Your task to perform on an android device: turn off notifications in google photos Image 0: 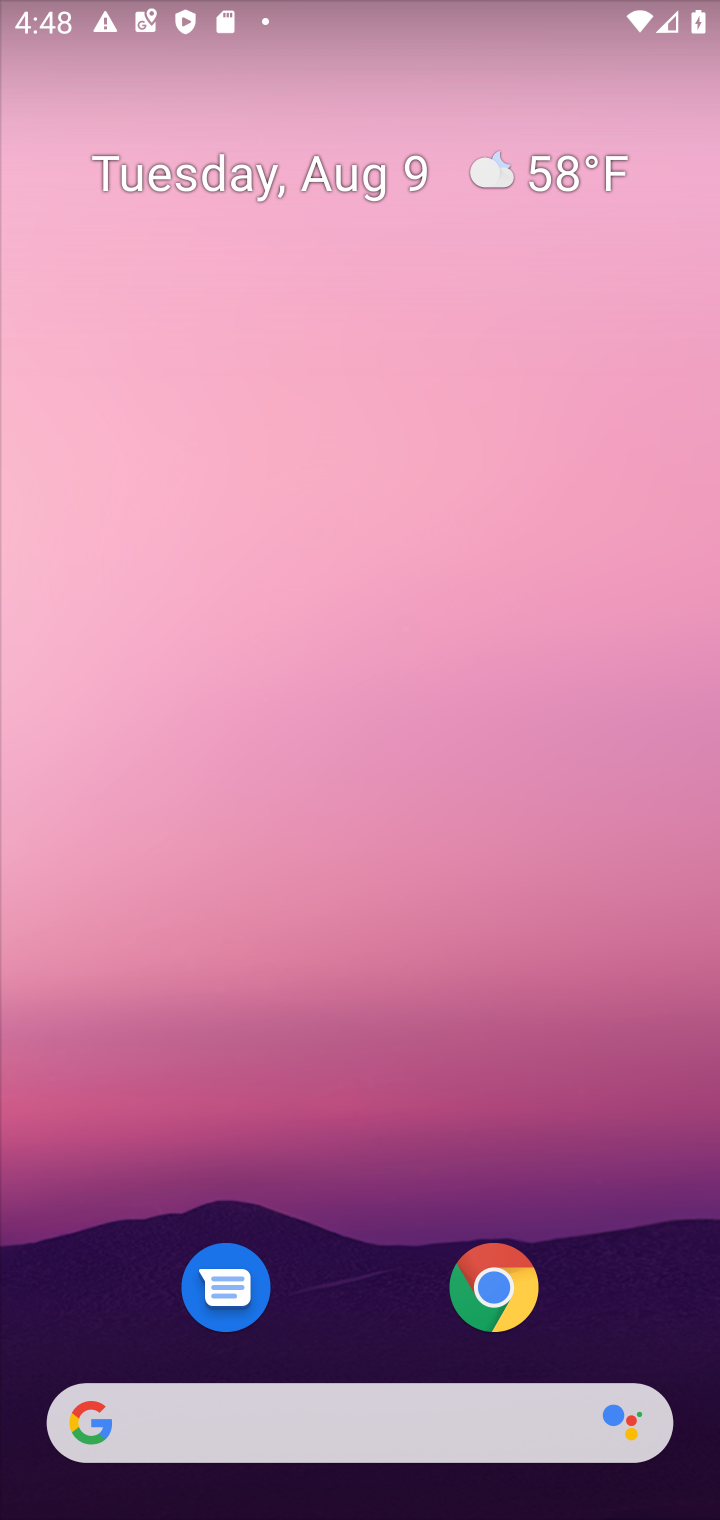
Step 0: drag from (319, 1082) to (364, 429)
Your task to perform on an android device: turn off notifications in google photos Image 1: 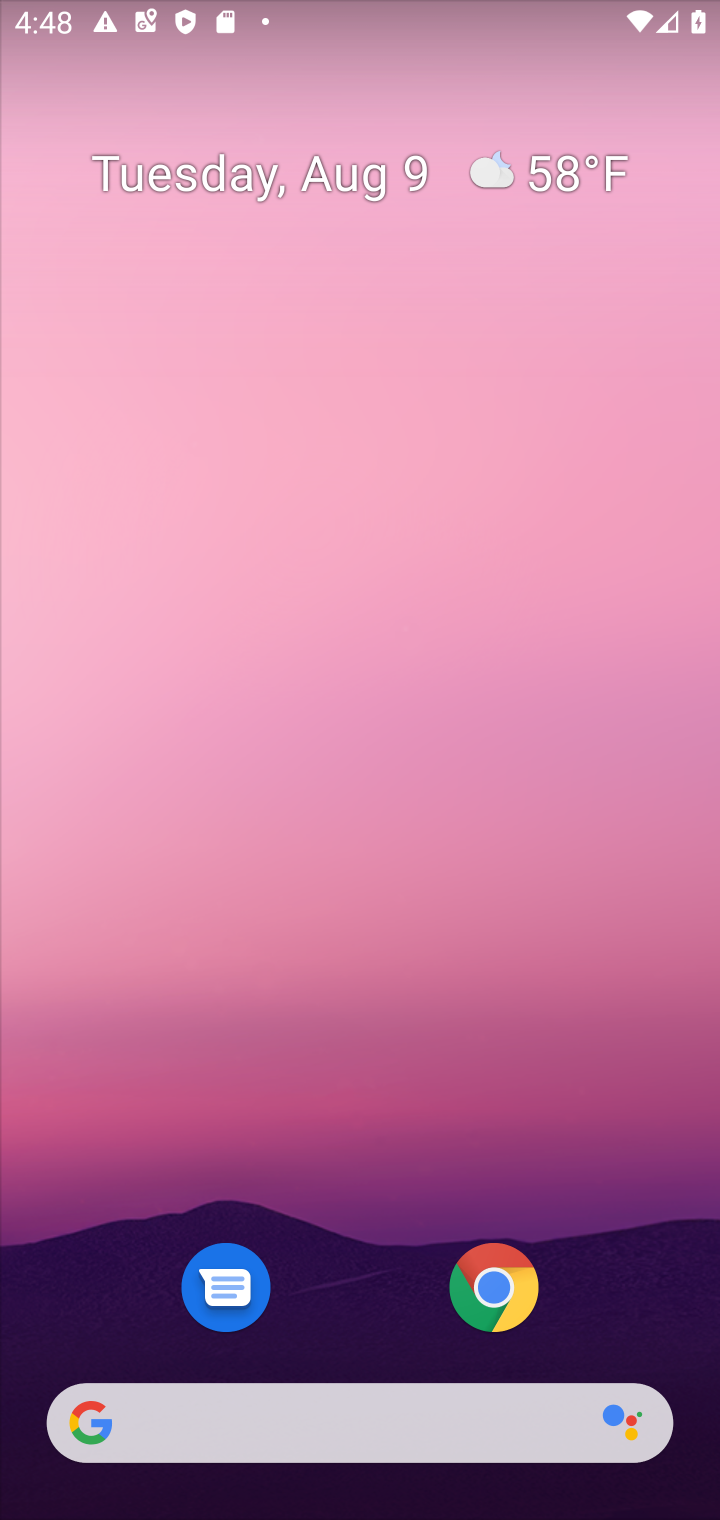
Step 1: drag from (469, 1243) to (384, 1139)
Your task to perform on an android device: turn off notifications in google photos Image 2: 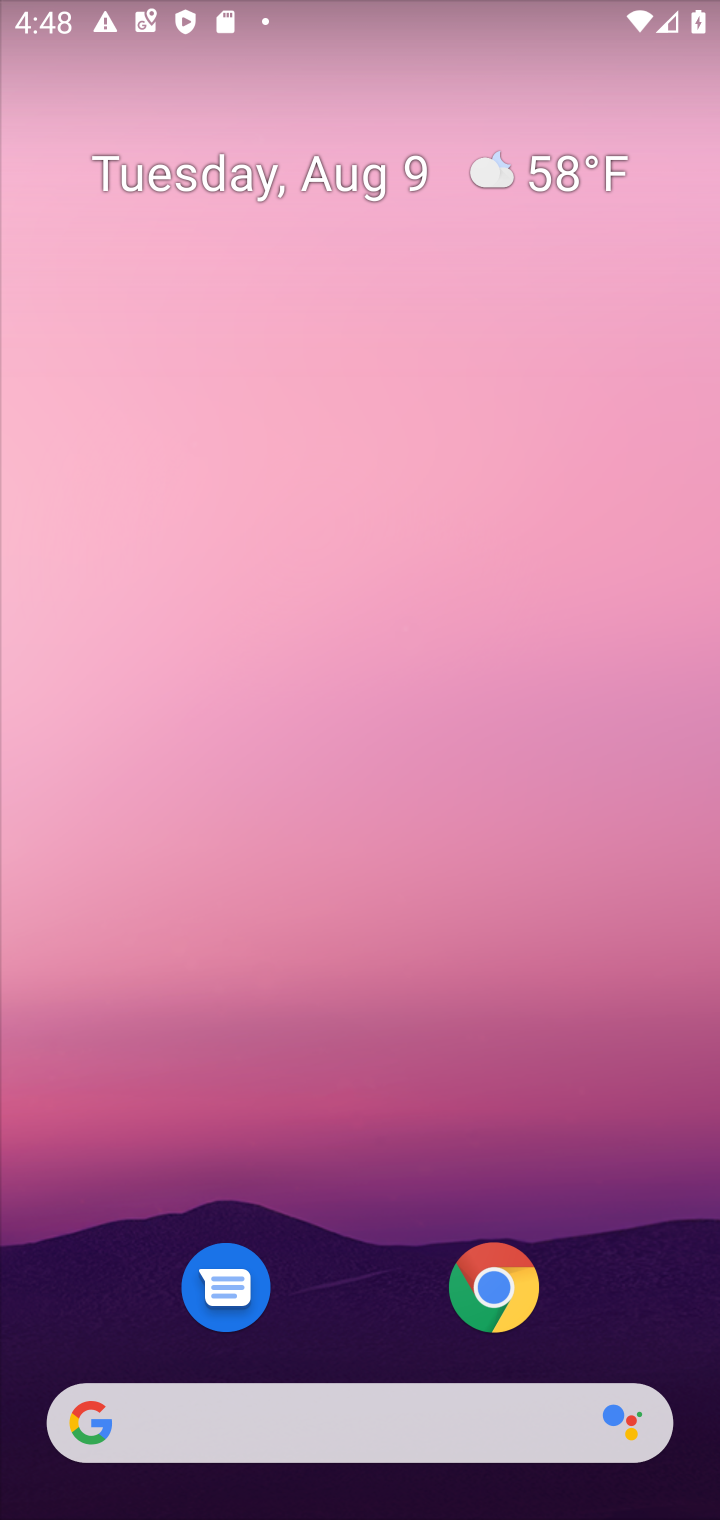
Step 2: drag from (385, 1139) to (455, 454)
Your task to perform on an android device: turn off notifications in google photos Image 3: 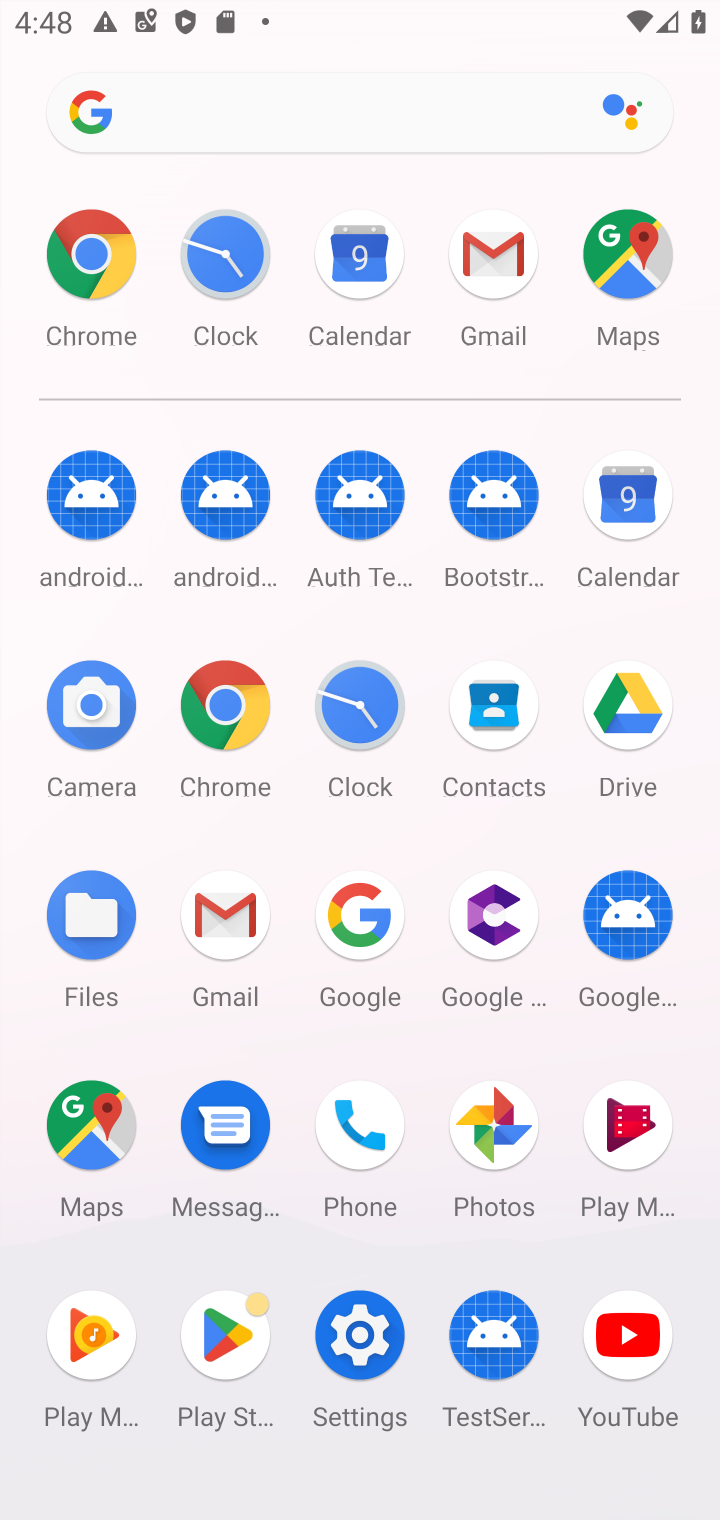
Step 3: click (502, 1118)
Your task to perform on an android device: turn off notifications in google photos Image 4: 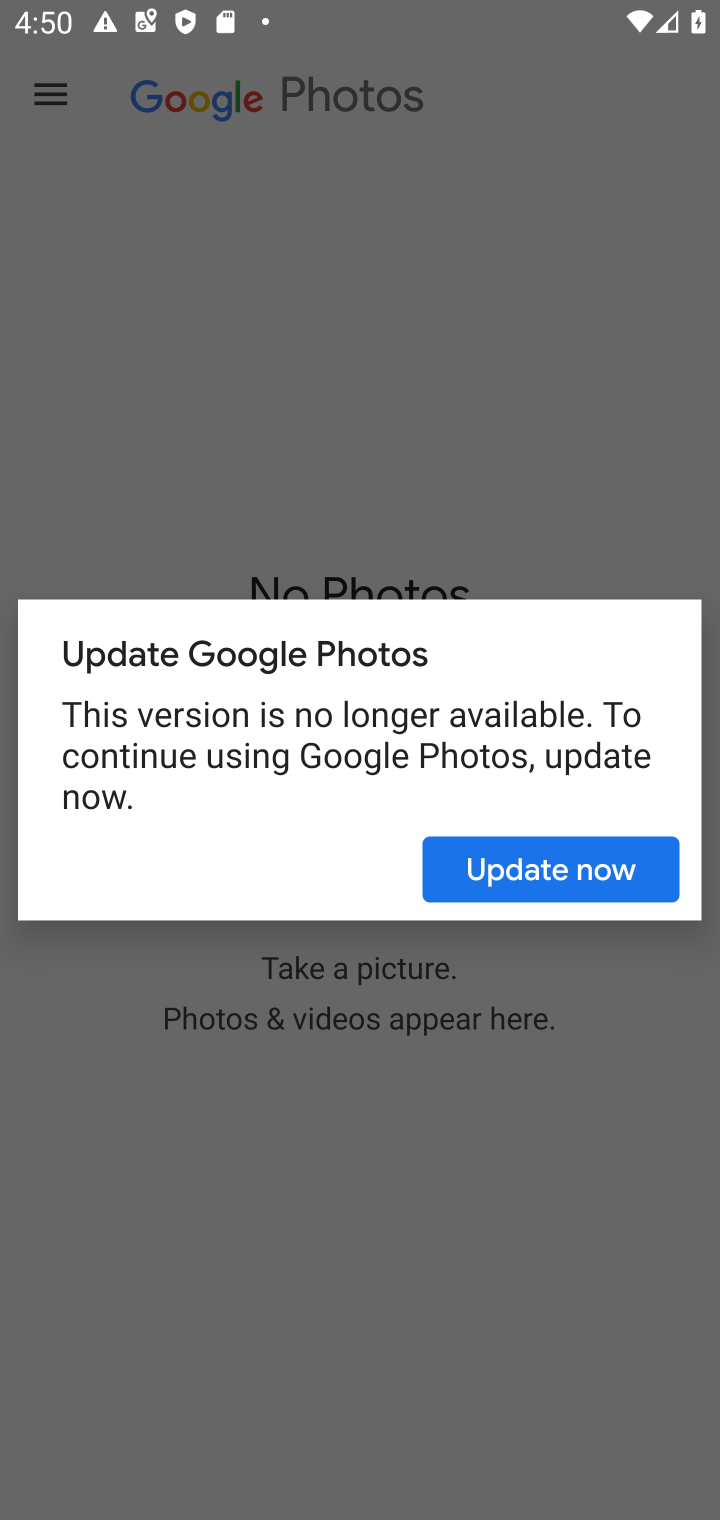
Step 4: press home button
Your task to perform on an android device: turn off notifications in google photos Image 5: 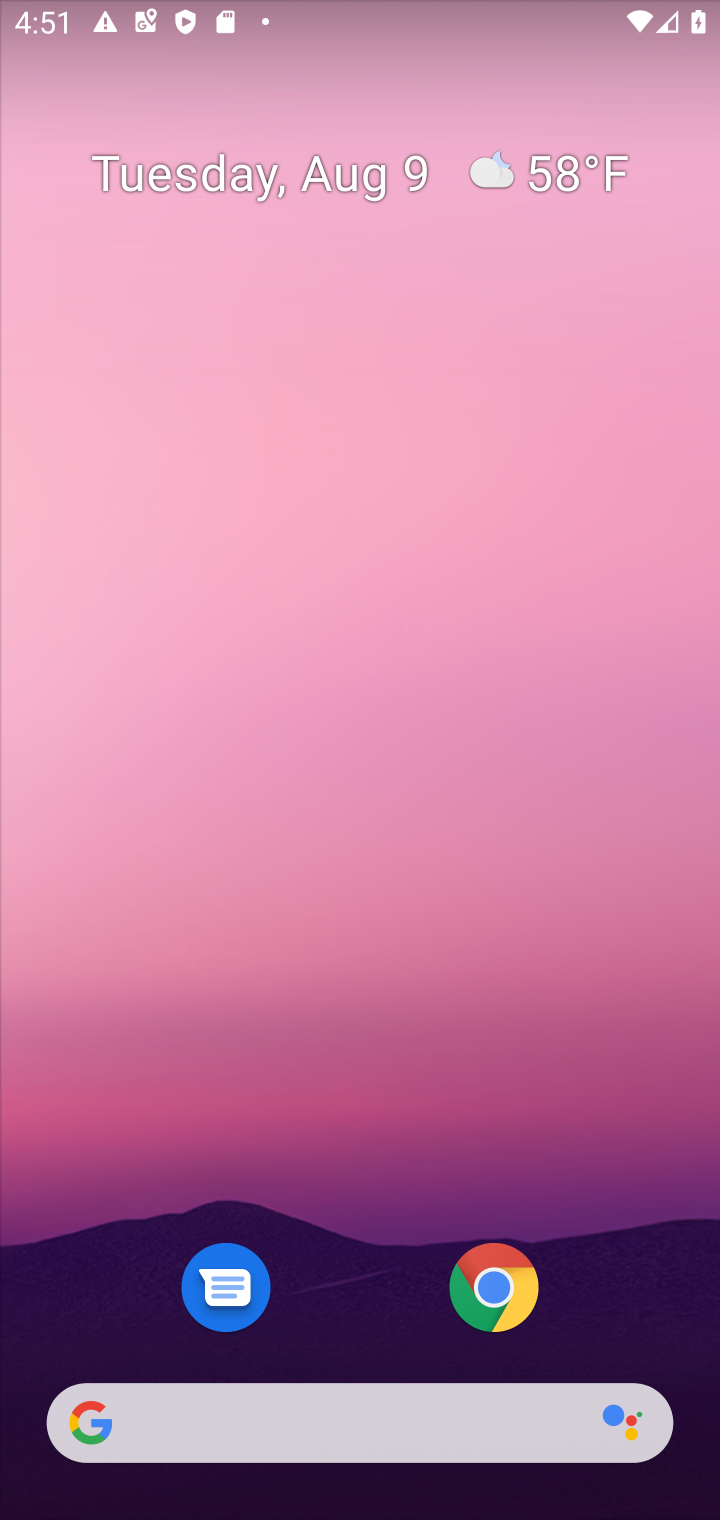
Step 5: drag from (374, 1067) to (548, 309)
Your task to perform on an android device: turn off notifications in google photos Image 6: 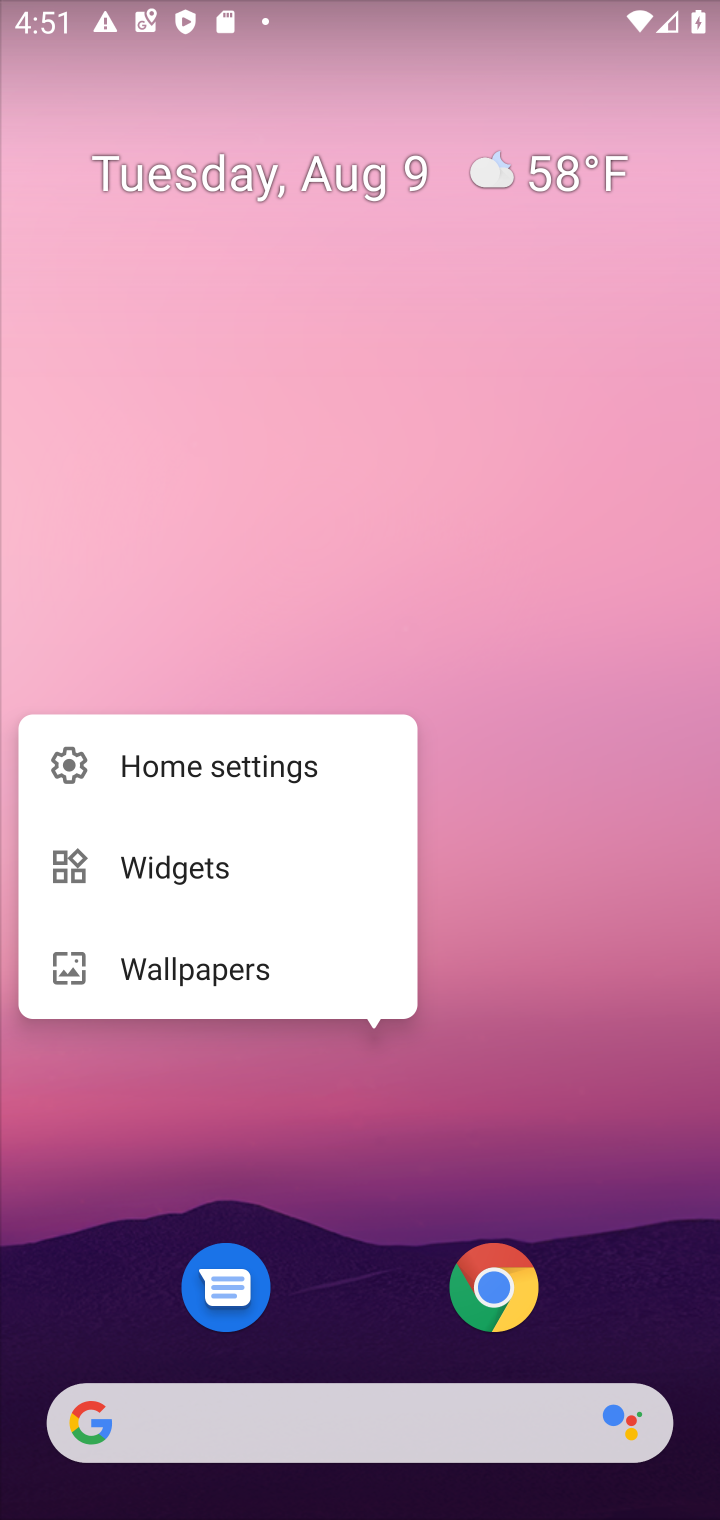
Step 6: click (438, 1123)
Your task to perform on an android device: turn off notifications in google photos Image 7: 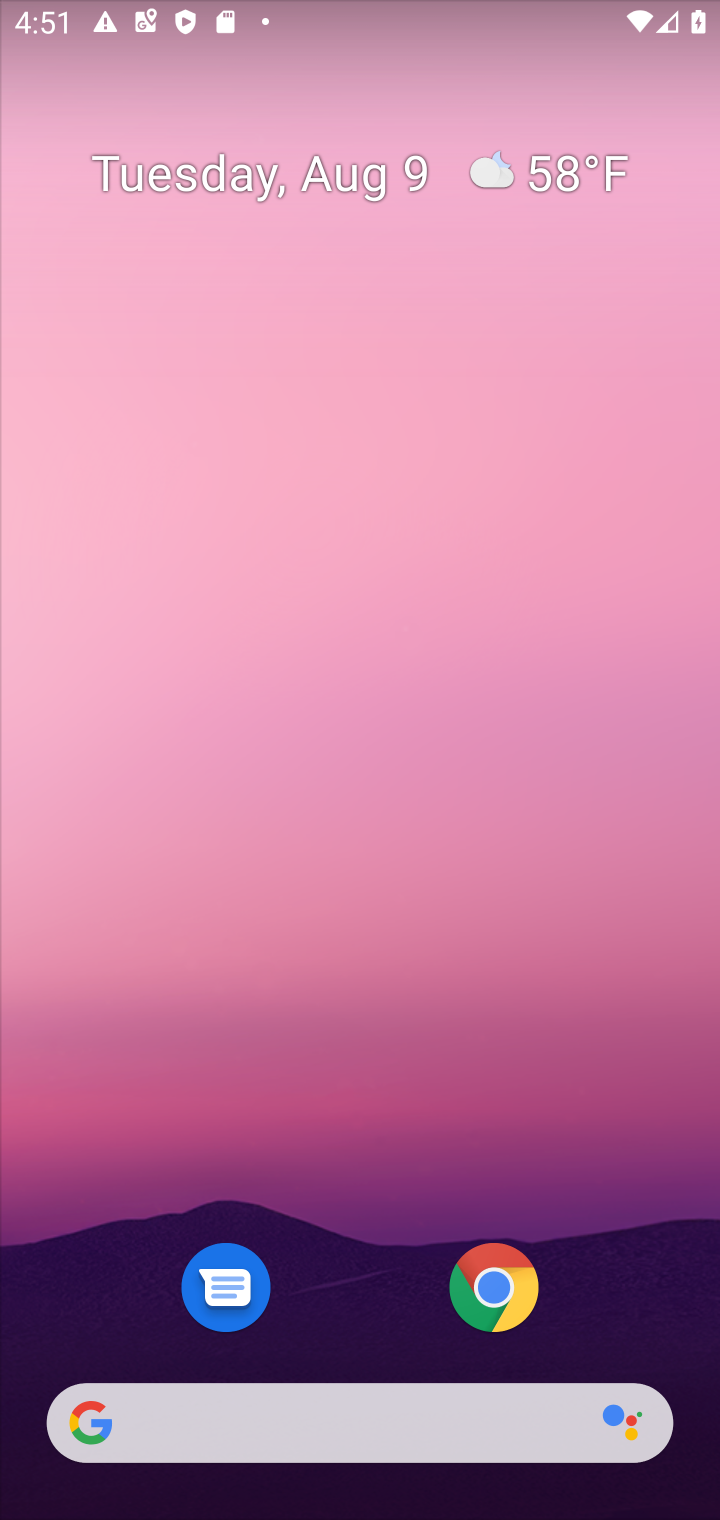
Step 7: task complete